Your task to perform on an android device: Open notification settings Image 0: 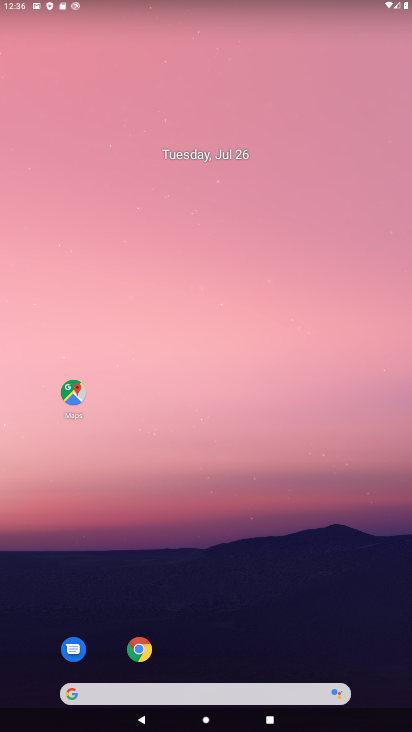
Step 0: drag from (321, 638) to (276, 333)
Your task to perform on an android device: Open notification settings Image 1: 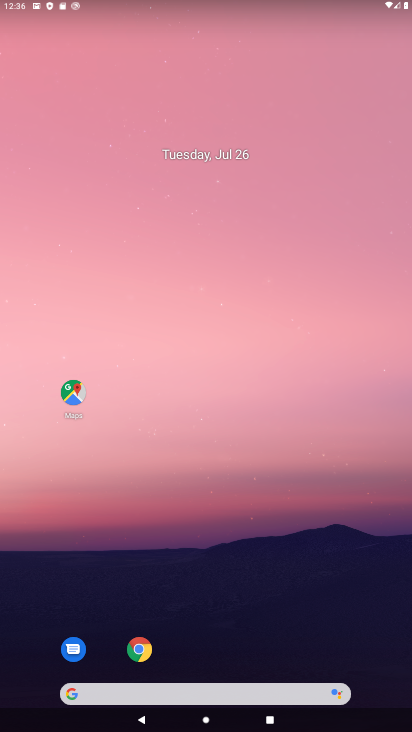
Step 1: drag from (298, 645) to (196, 35)
Your task to perform on an android device: Open notification settings Image 2: 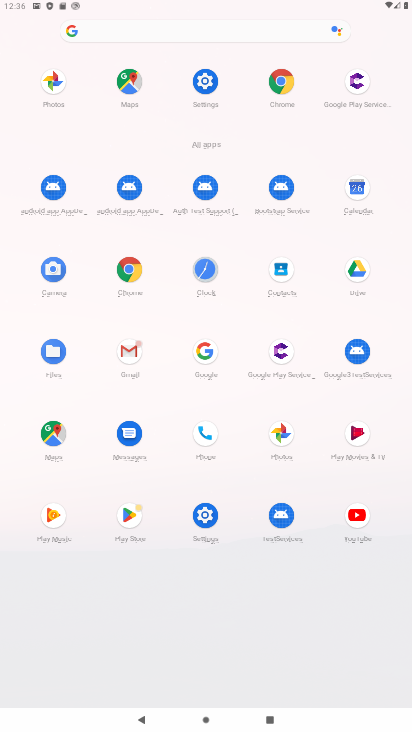
Step 2: click (207, 519)
Your task to perform on an android device: Open notification settings Image 3: 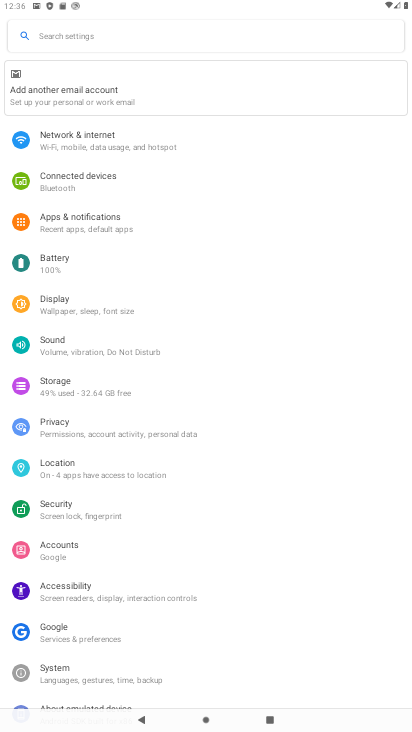
Step 3: click (183, 228)
Your task to perform on an android device: Open notification settings Image 4: 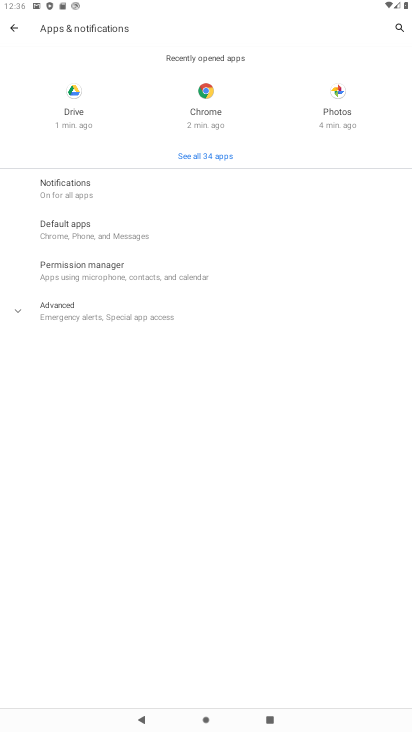
Step 4: click (126, 190)
Your task to perform on an android device: Open notification settings Image 5: 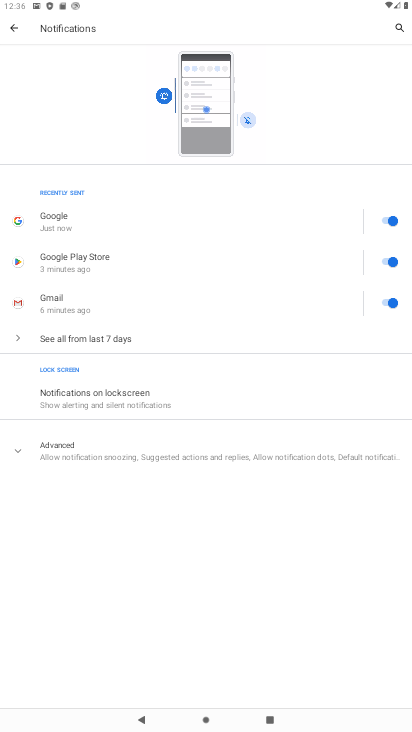
Step 5: task complete